Your task to perform on an android device: move an email to a new category in the gmail app Image 0: 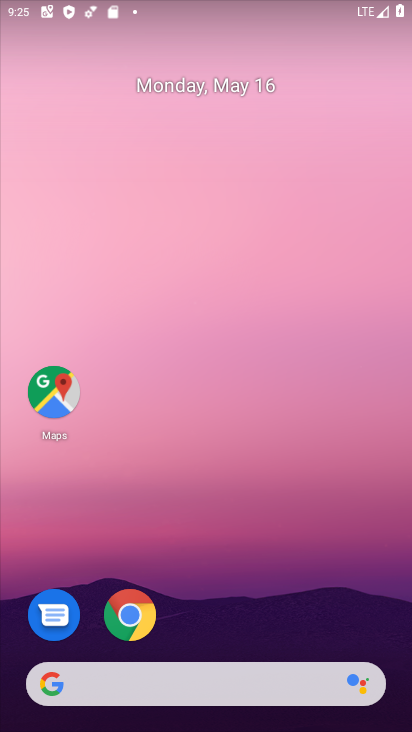
Step 0: drag from (186, 600) to (159, 176)
Your task to perform on an android device: move an email to a new category in the gmail app Image 1: 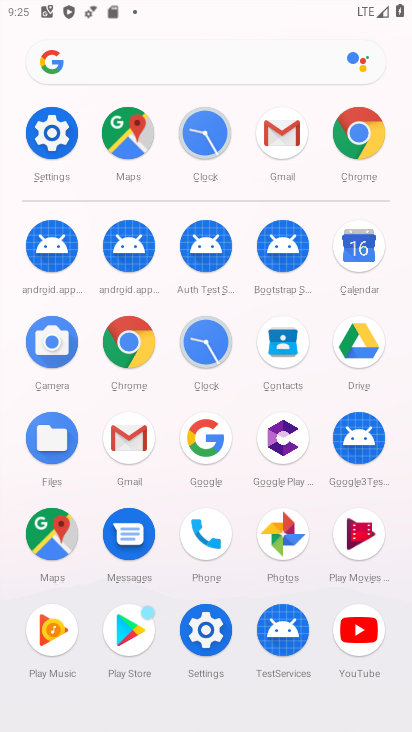
Step 1: click (140, 450)
Your task to perform on an android device: move an email to a new category in the gmail app Image 2: 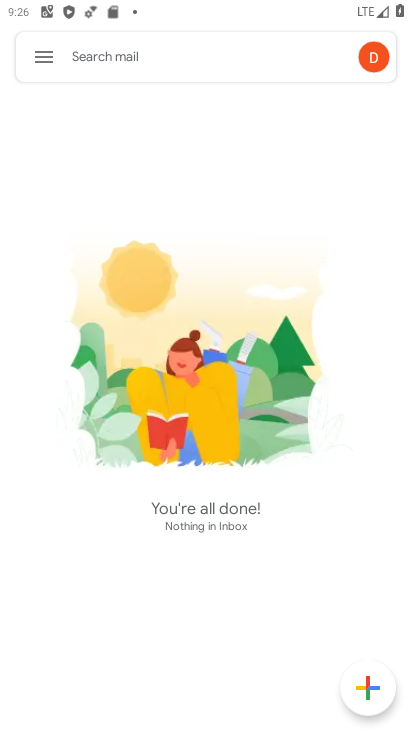
Step 2: click (45, 66)
Your task to perform on an android device: move an email to a new category in the gmail app Image 3: 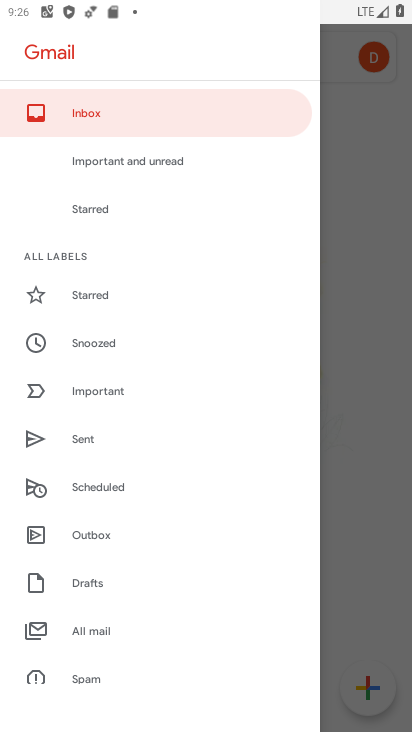
Step 3: click (114, 630)
Your task to perform on an android device: move an email to a new category in the gmail app Image 4: 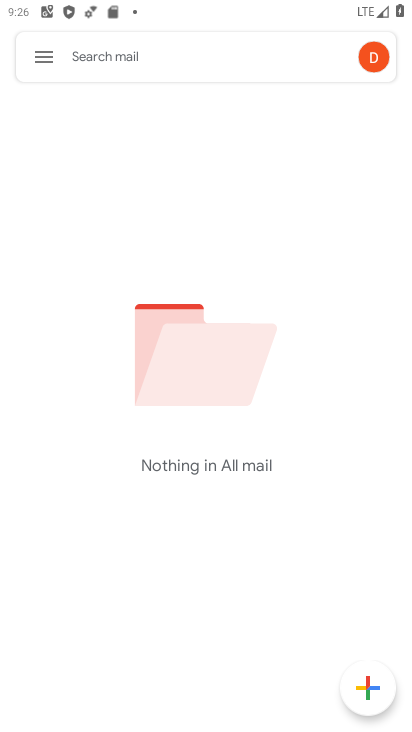
Step 4: task complete